Your task to perform on an android device: install app "Google Pay: Save, Pay, Manage" Image 0: 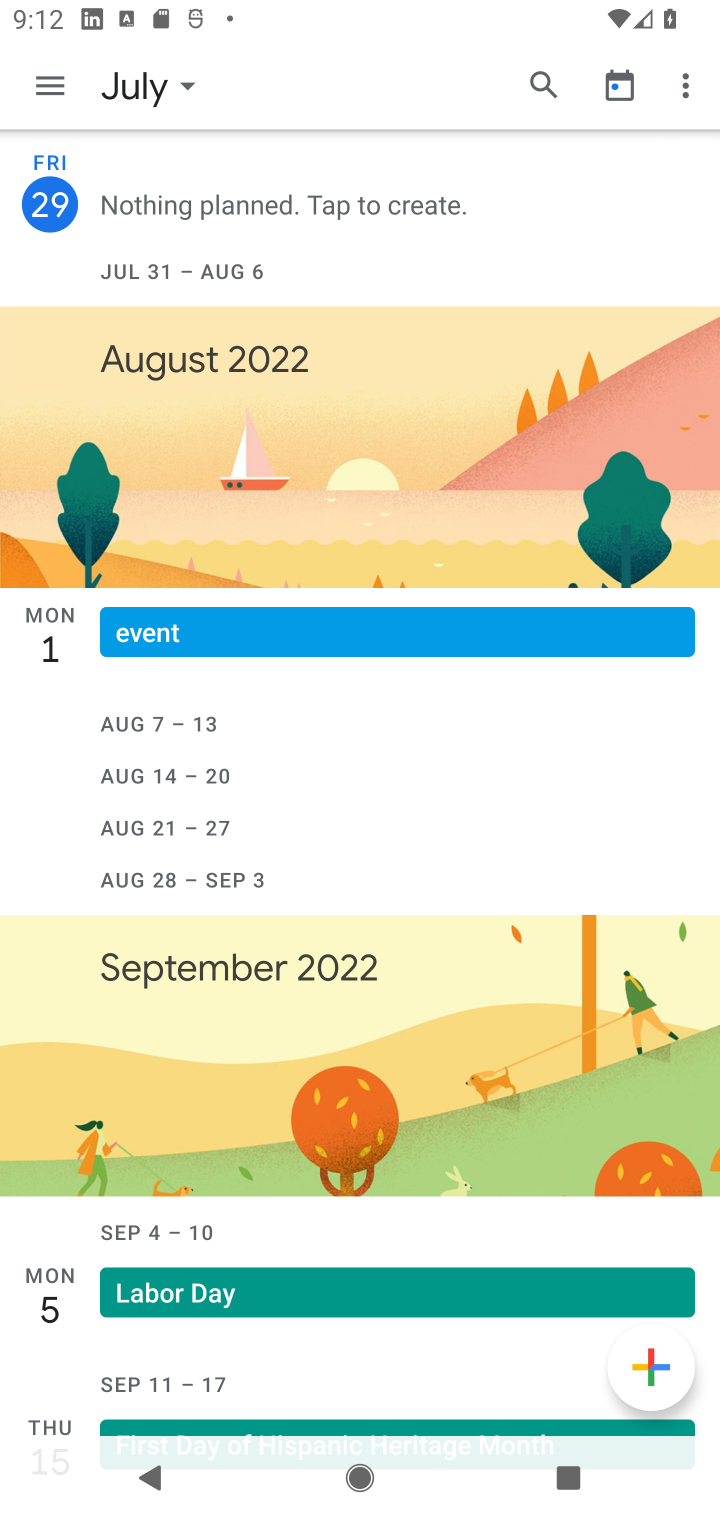
Step 0: press home button
Your task to perform on an android device: install app "Google Pay: Save, Pay, Manage" Image 1: 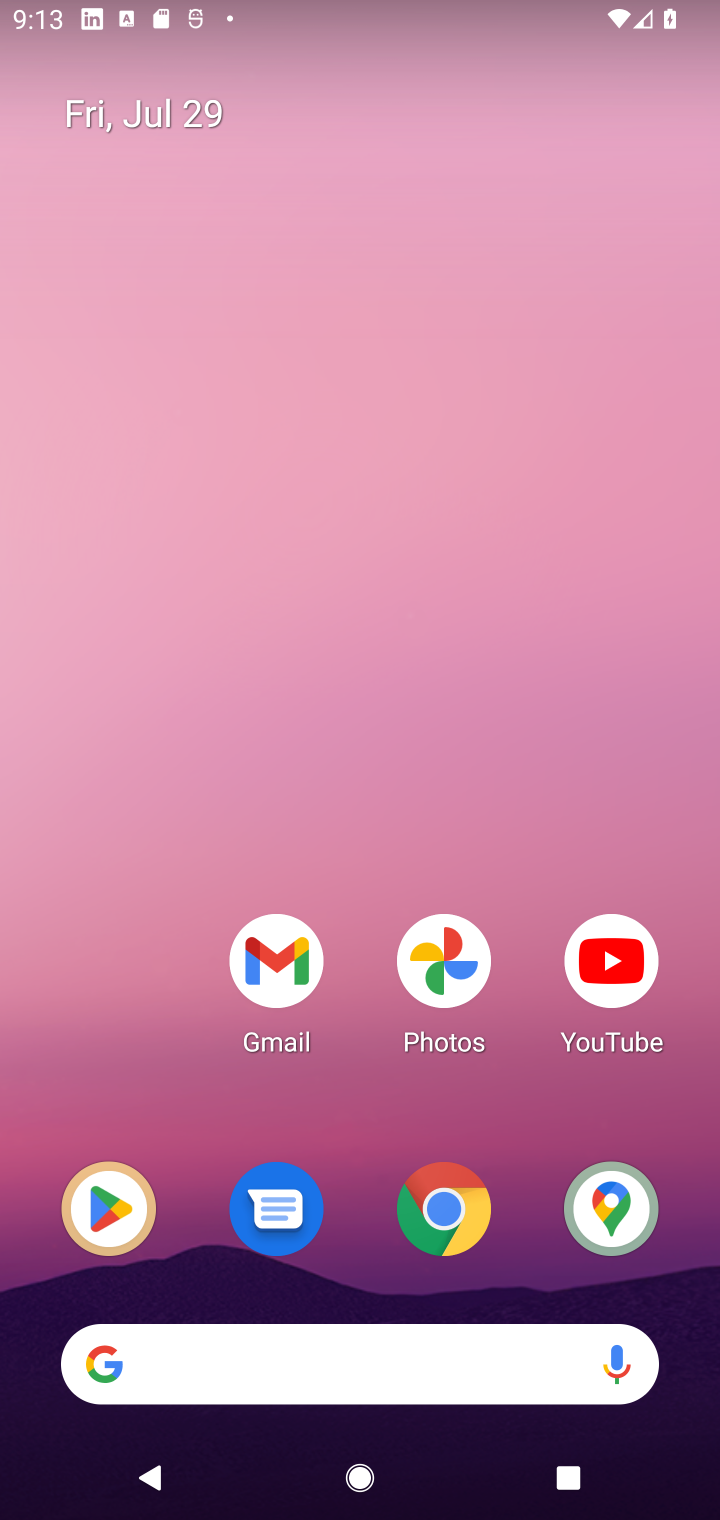
Step 1: click (117, 1231)
Your task to perform on an android device: install app "Google Pay: Save, Pay, Manage" Image 2: 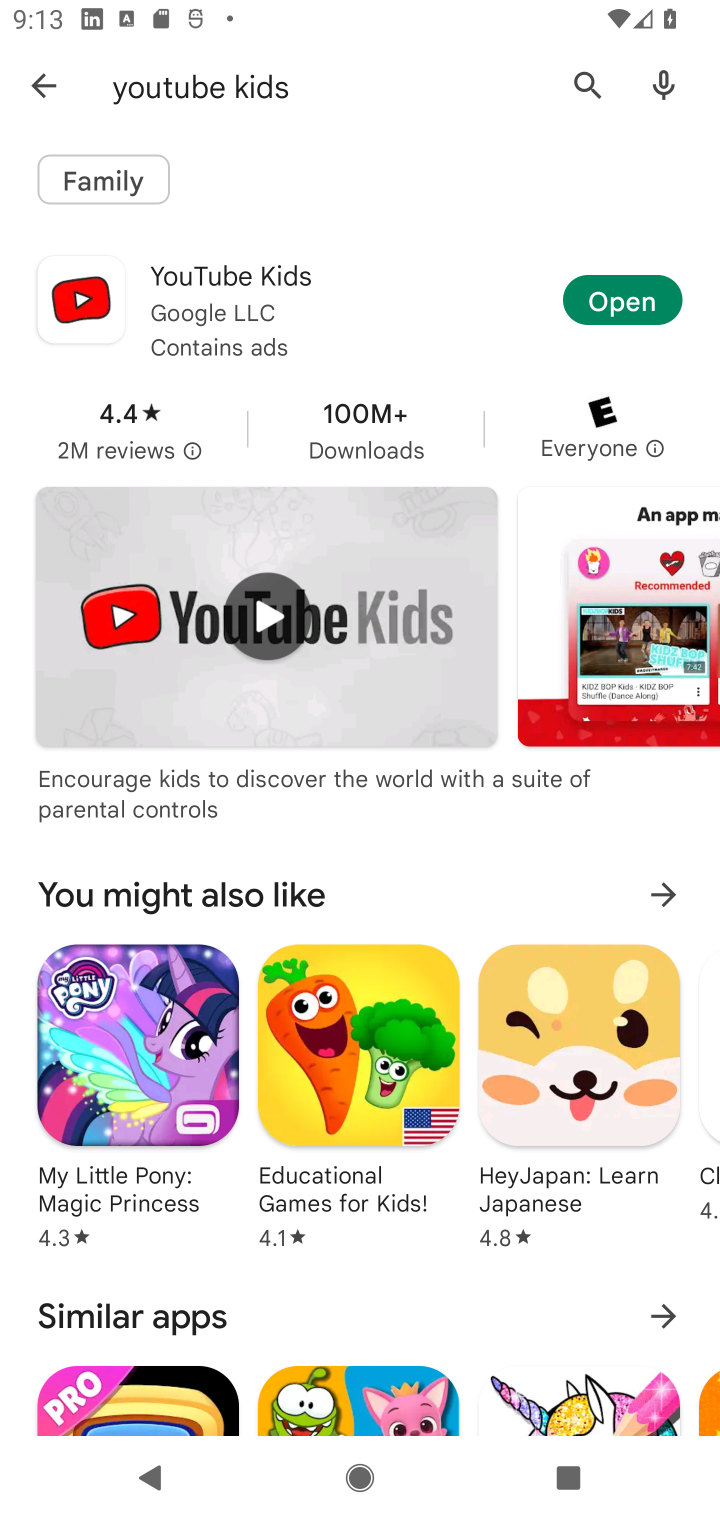
Step 2: click (583, 81)
Your task to perform on an android device: install app "Google Pay: Save, Pay, Manage" Image 3: 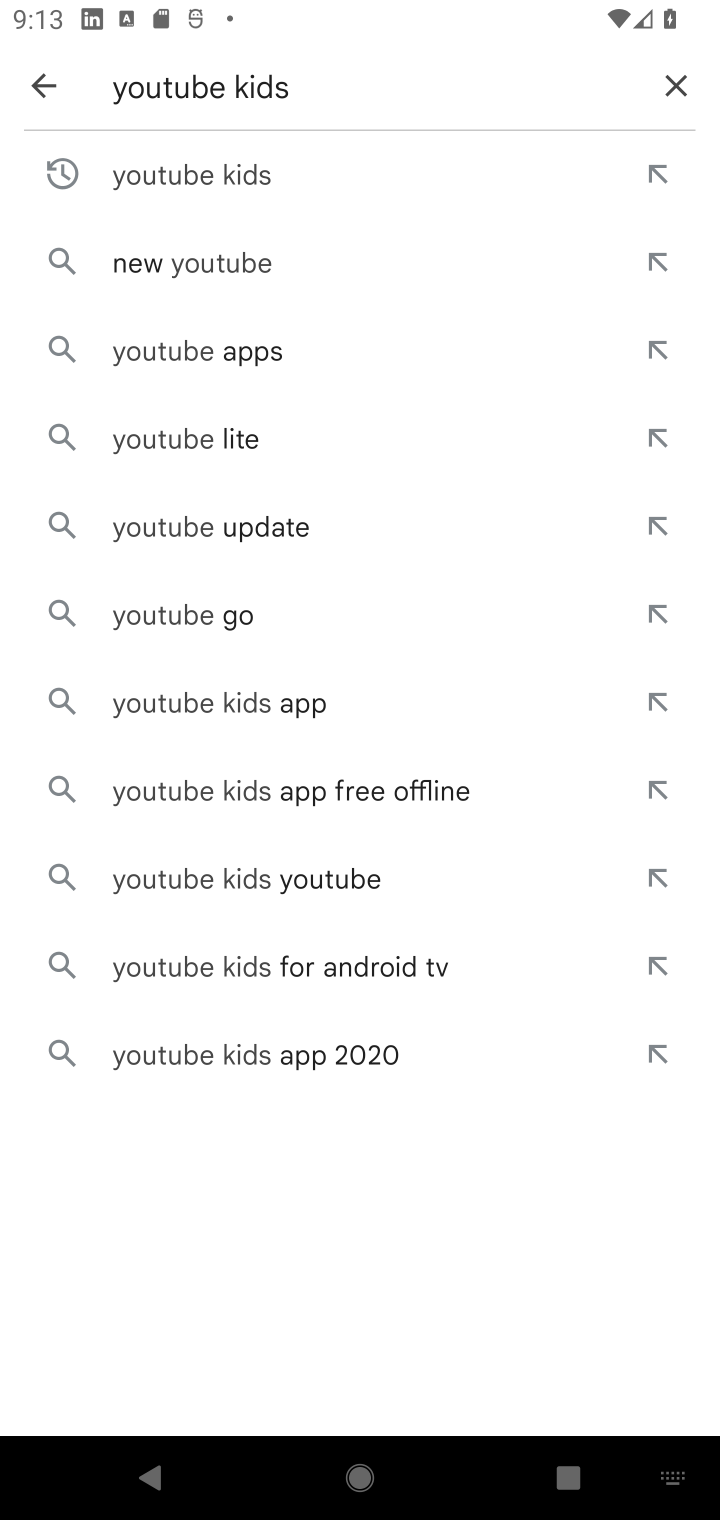
Step 3: click (683, 87)
Your task to perform on an android device: install app "Google Pay: Save, Pay, Manage" Image 4: 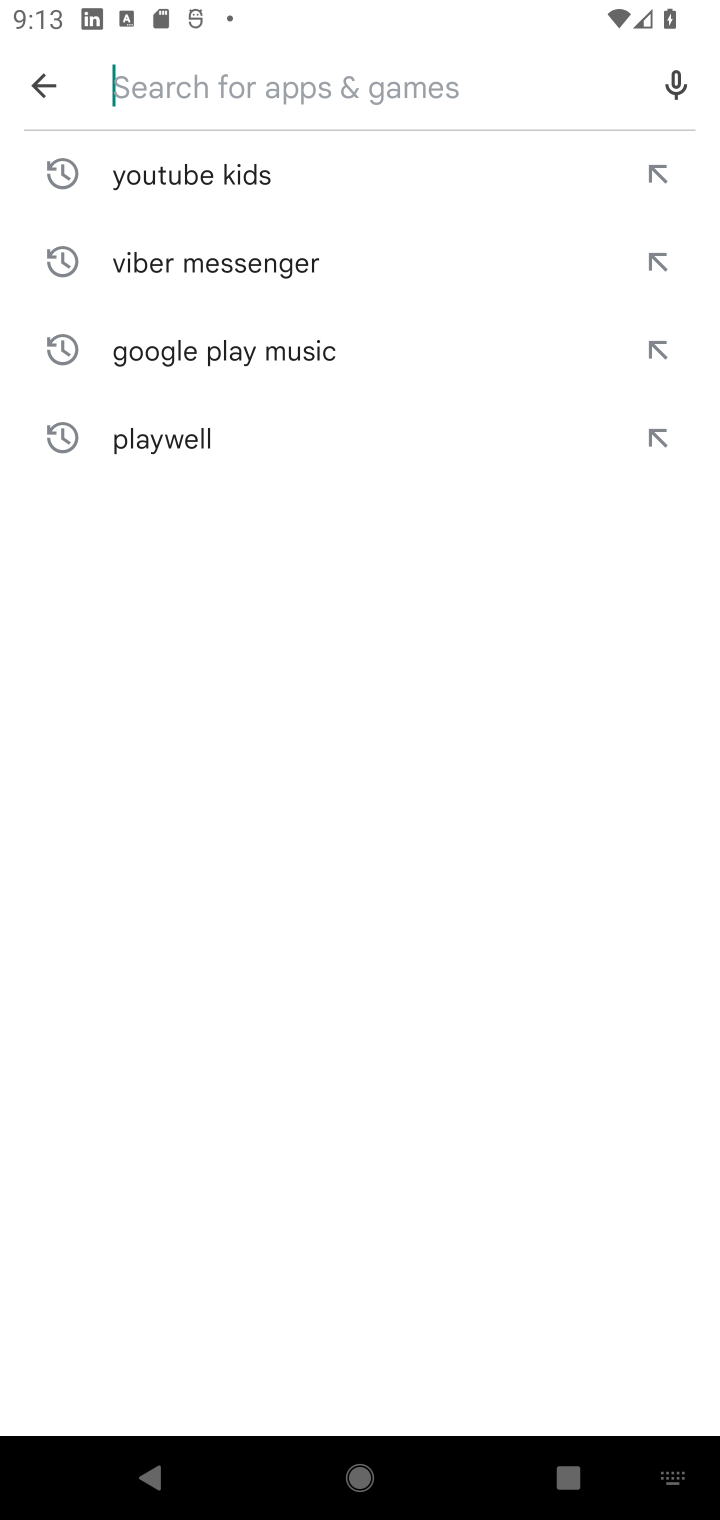
Step 4: click (436, 101)
Your task to perform on an android device: install app "Google Pay: Save, Pay, Manage" Image 5: 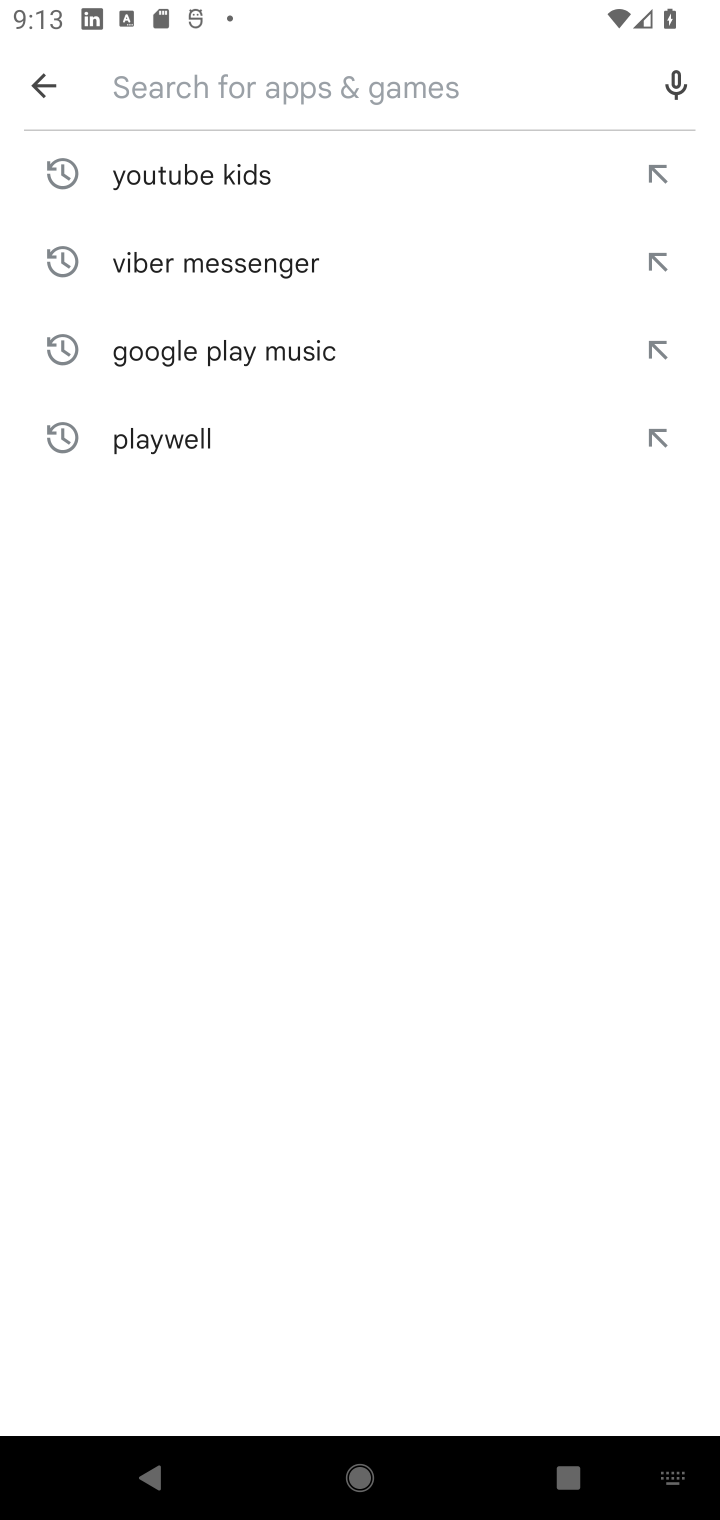
Step 5: type "Google Pay: Save, Pay, Manage"
Your task to perform on an android device: install app "Google Pay: Save, Pay, Manage" Image 6: 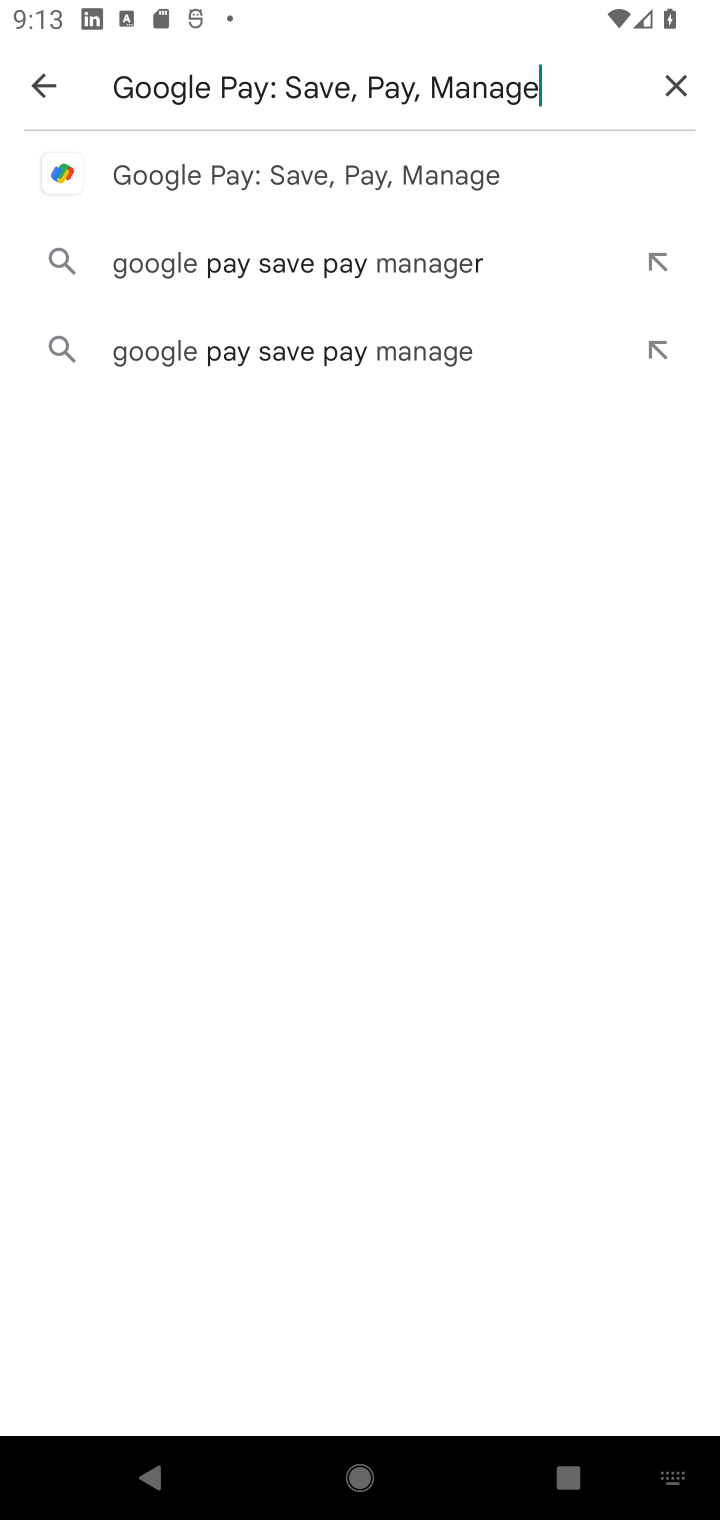
Step 6: click (372, 170)
Your task to perform on an android device: install app "Google Pay: Save, Pay, Manage" Image 7: 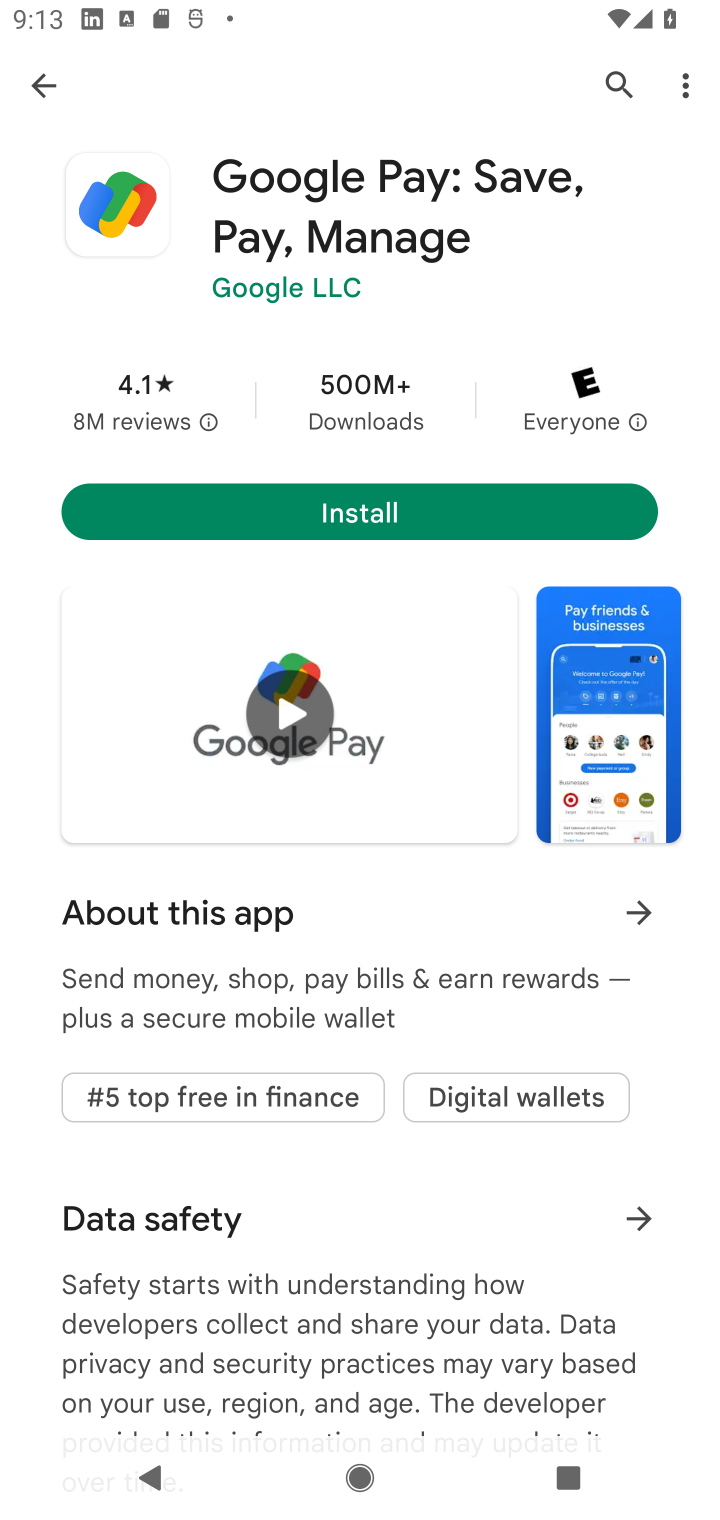
Step 7: click (400, 529)
Your task to perform on an android device: install app "Google Pay: Save, Pay, Manage" Image 8: 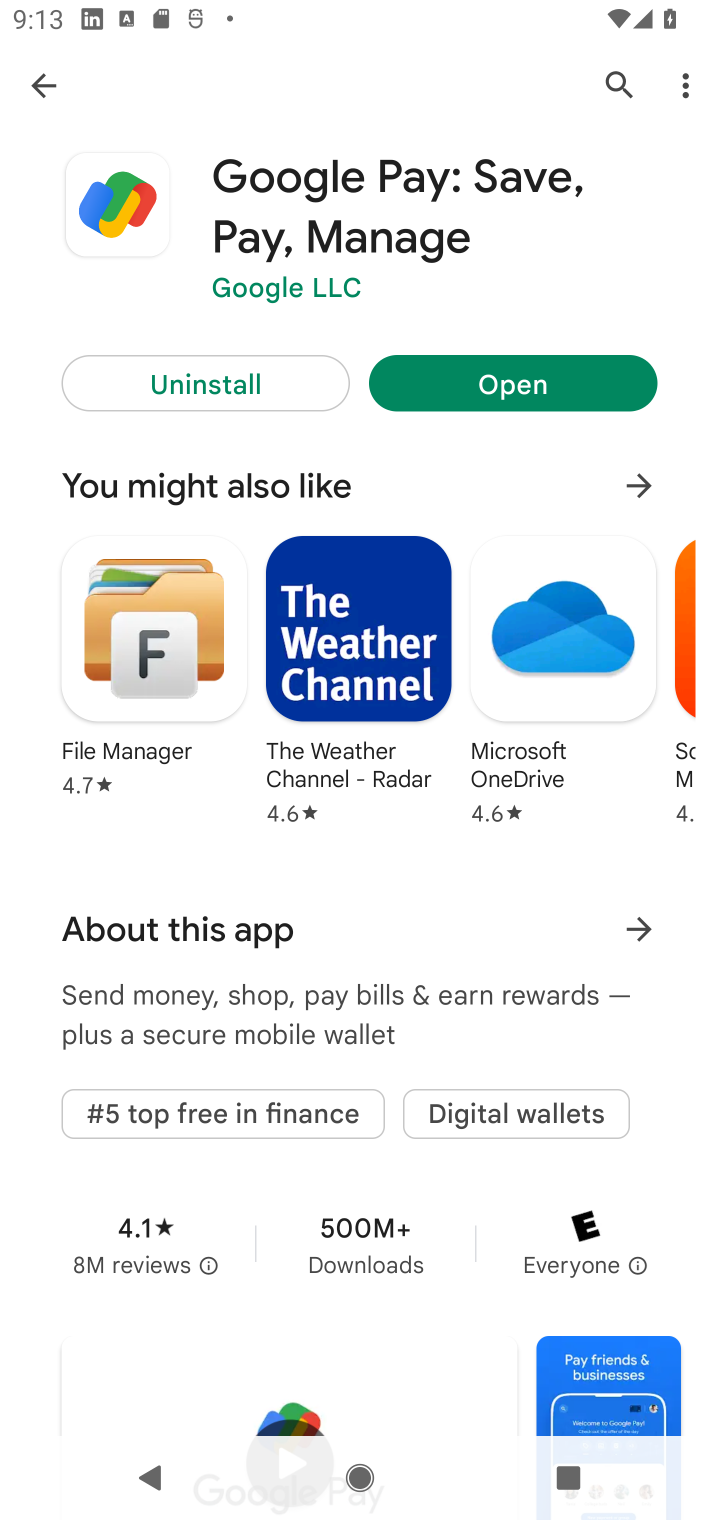
Step 8: task complete